Your task to perform on an android device: toggle improve location accuracy Image 0: 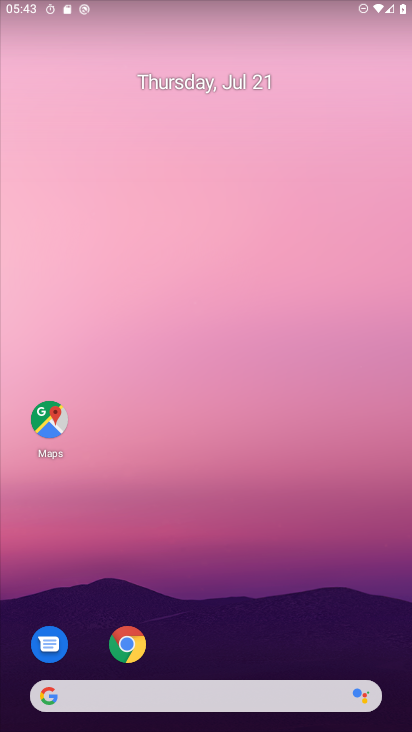
Step 0: drag from (170, 646) to (118, 342)
Your task to perform on an android device: toggle improve location accuracy Image 1: 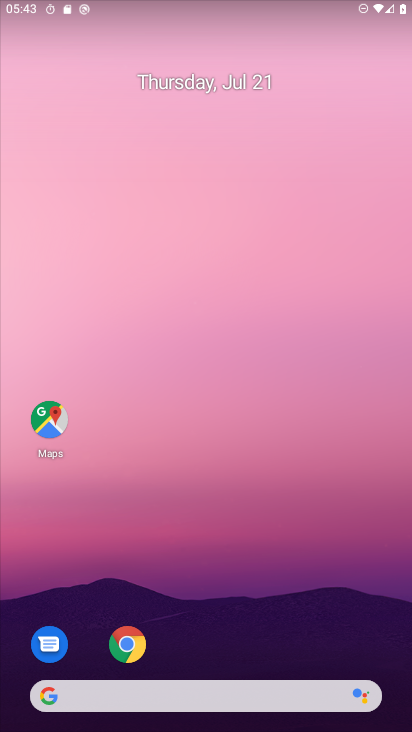
Step 1: drag from (194, 324) to (257, 1)
Your task to perform on an android device: toggle improve location accuracy Image 2: 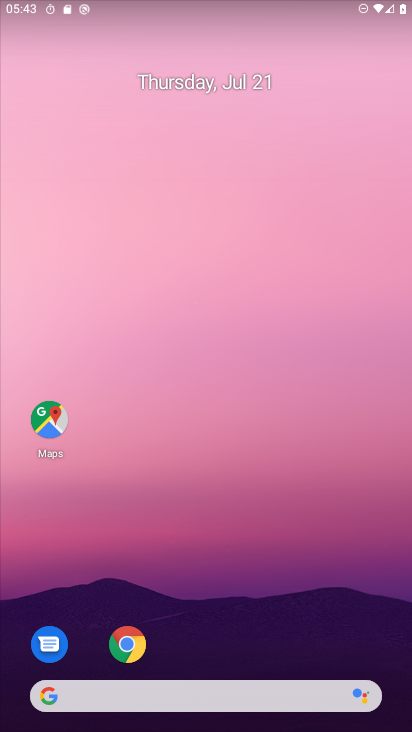
Step 2: drag from (192, 440) to (69, 101)
Your task to perform on an android device: toggle improve location accuracy Image 3: 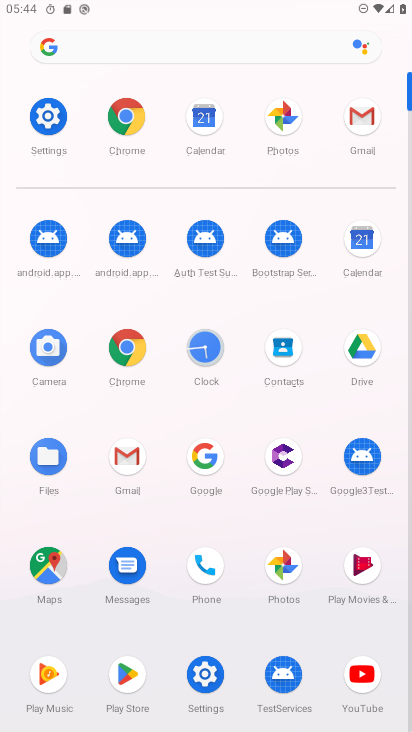
Step 3: click (45, 127)
Your task to perform on an android device: toggle improve location accuracy Image 4: 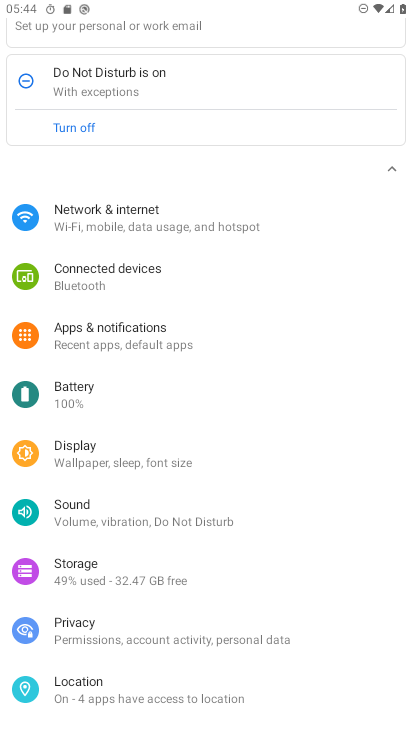
Step 4: drag from (136, 431) to (151, 324)
Your task to perform on an android device: toggle improve location accuracy Image 5: 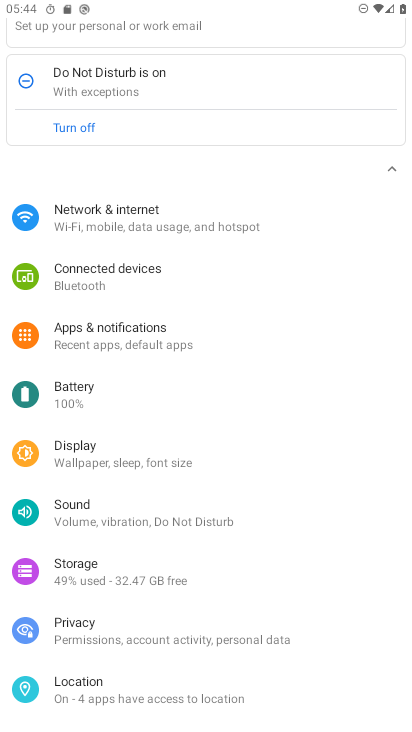
Step 5: click (83, 689)
Your task to perform on an android device: toggle improve location accuracy Image 6: 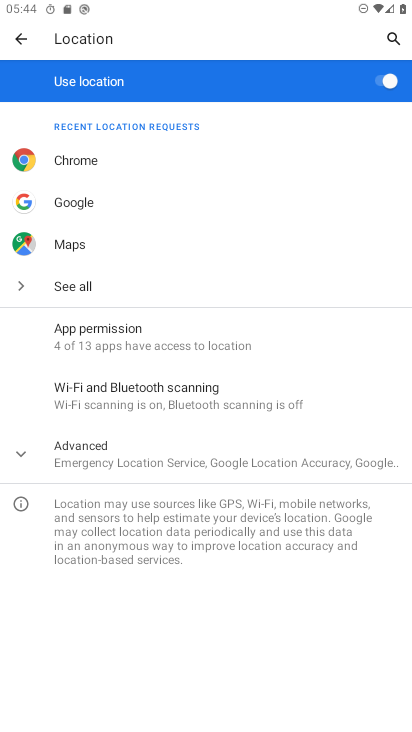
Step 6: click (117, 448)
Your task to perform on an android device: toggle improve location accuracy Image 7: 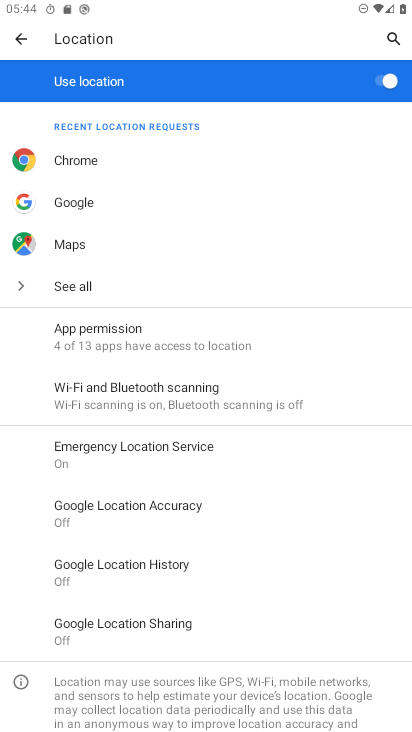
Step 7: click (137, 499)
Your task to perform on an android device: toggle improve location accuracy Image 8: 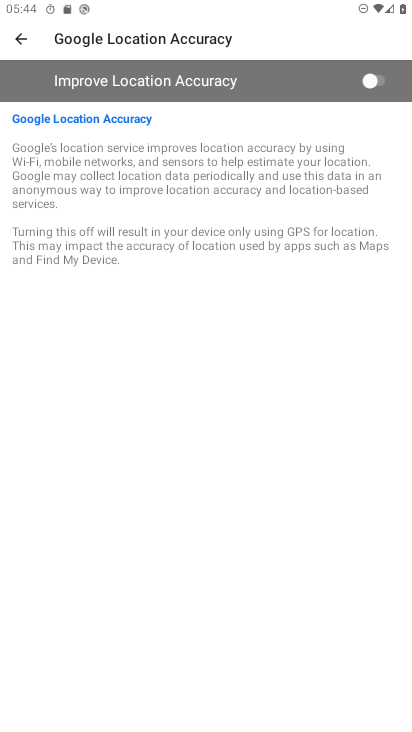
Step 8: click (379, 90)
Your task to perform on an android device: toggle improve location accuracy Image 9: 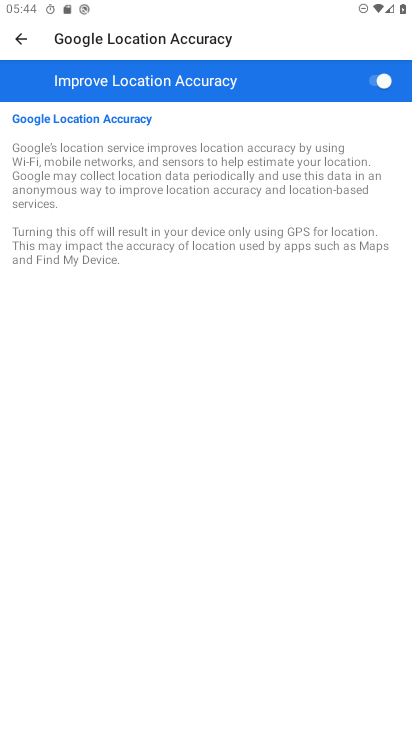
Step 9: task complete